Your task to perform on an android device: set an alarm Image 0: 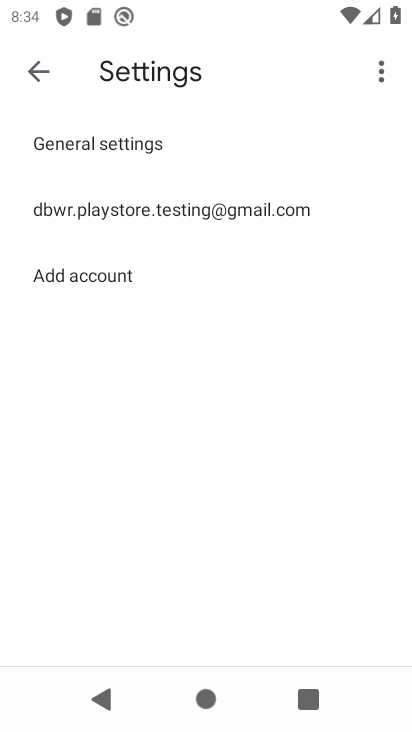
Step 0: press home button
Your task to perform on an android device: set an alarm Image 1: 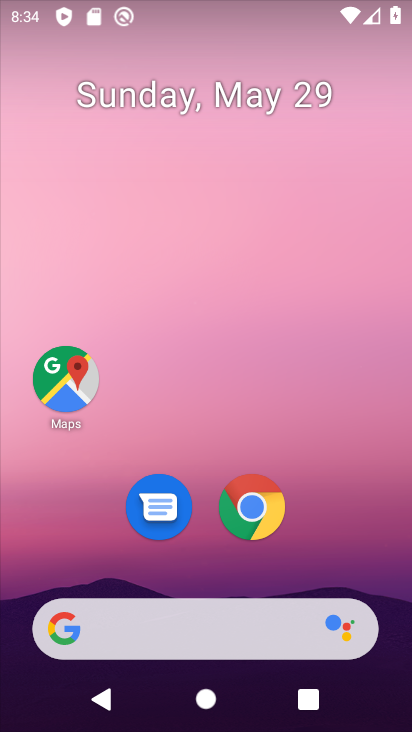
Step 1: drag from (85, 583) to (309, 43)
Your task to perform on an android device: set an alarm Image 2: 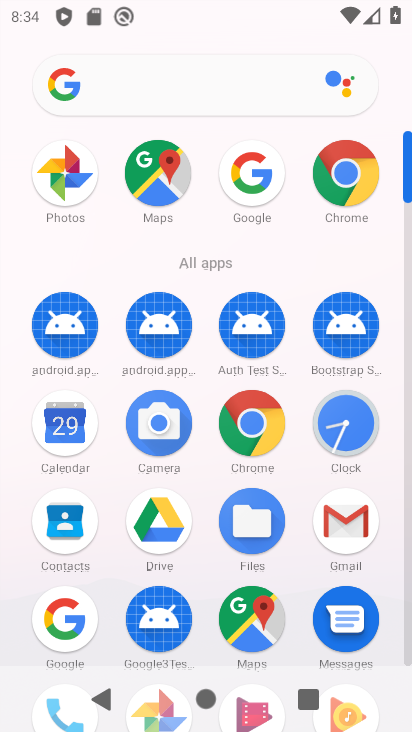
Step 2: click (354, 427)
Your task to perform on an android device: set an alarm Image 3: 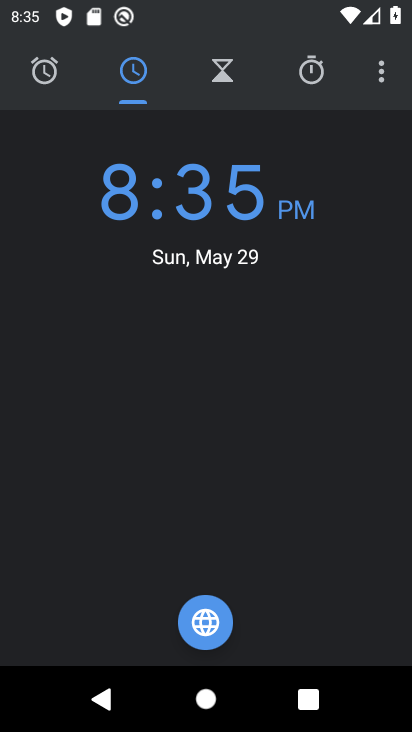
Step 3: click (62, 94)
Your task to perform on an android device: set an alarm Image 4: 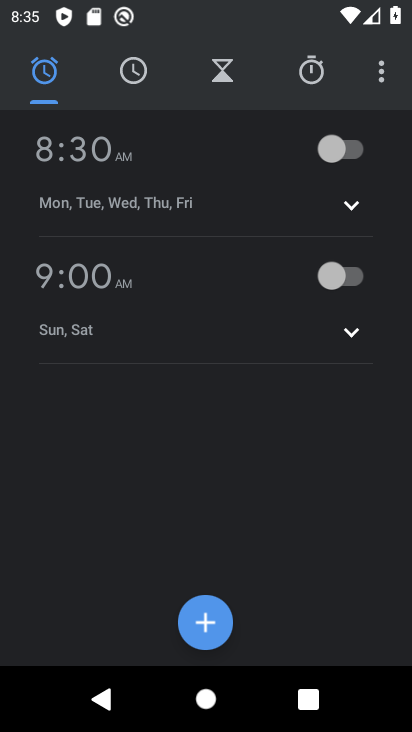
Step 4: click (215, 619)
Your task to perform on an android device: set an alarm Image 5: 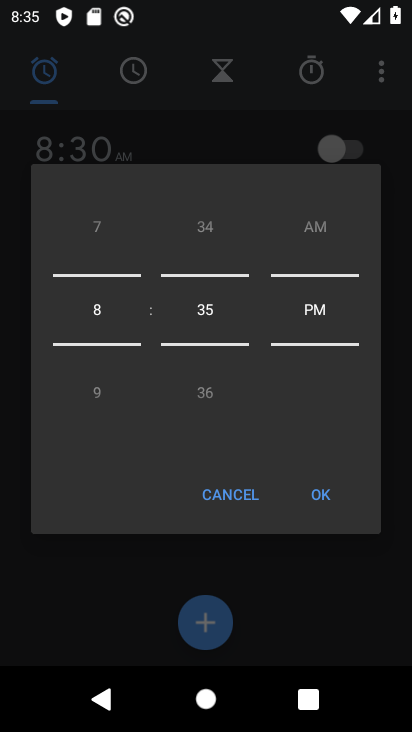
Step 5: click (98, 391)
Your task to perform on an android device: set an alarm Image 6: 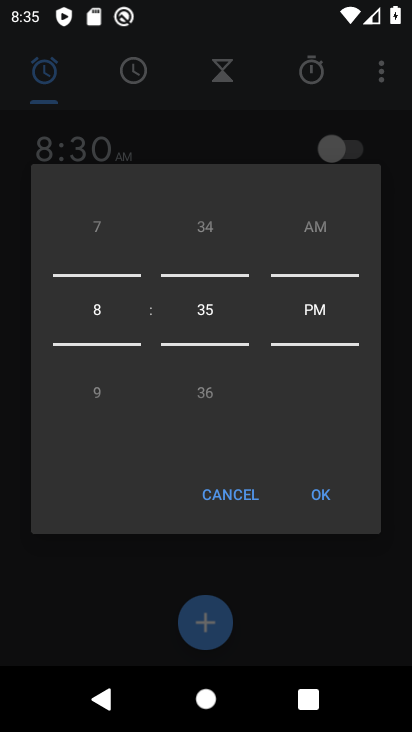
Step 6: click (102, 400)
Your task to perform on an android device: set an alarm Image 7: 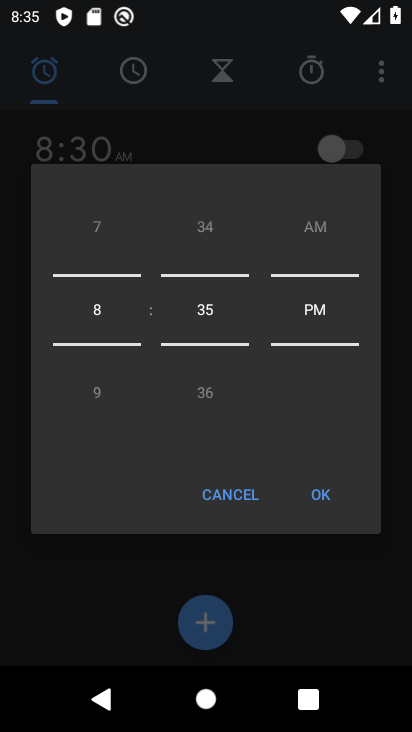
Step 7: drag from (102, 330) to (140, 147)
Your task to perform on an android device: set an alarm Image 8: 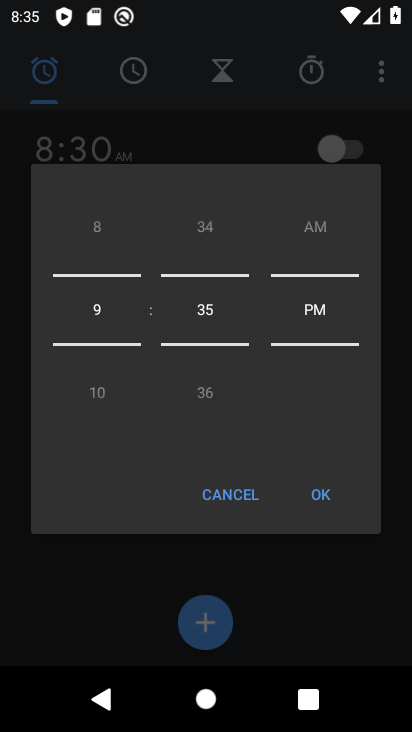
Step 8: drag from (199, 369) to (281, 110)
Your task to perform on an android device: set an alarm Image 9: 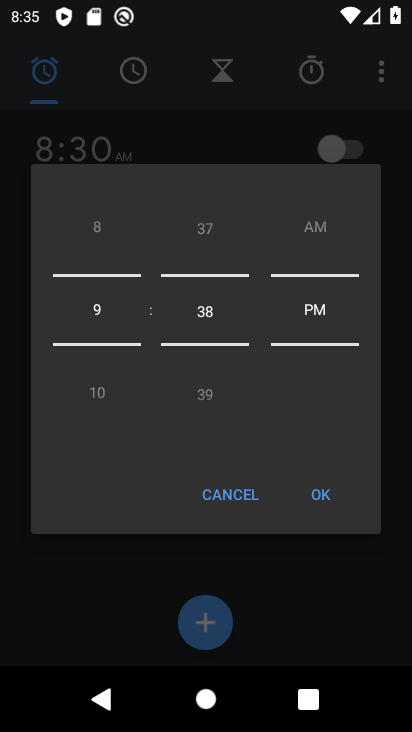
Step 9: drag from (194, 408) to (297, 114)
Your task to perform on an android device: set an alarm Image 10: 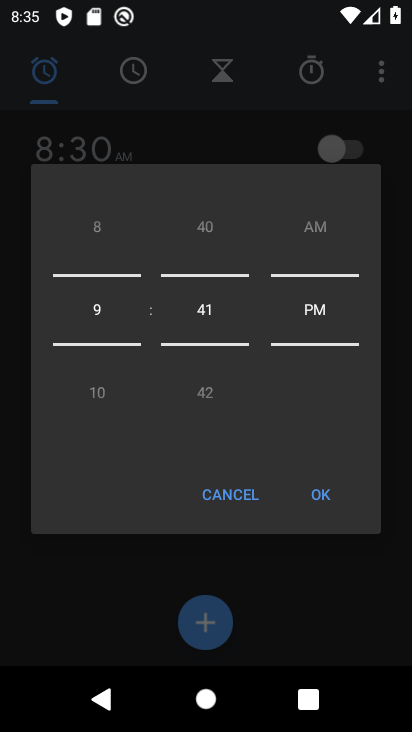
Step 10: drag from (78, 377) to (140, 220)
Your task to perform on an android device: set an alarm Image 11: 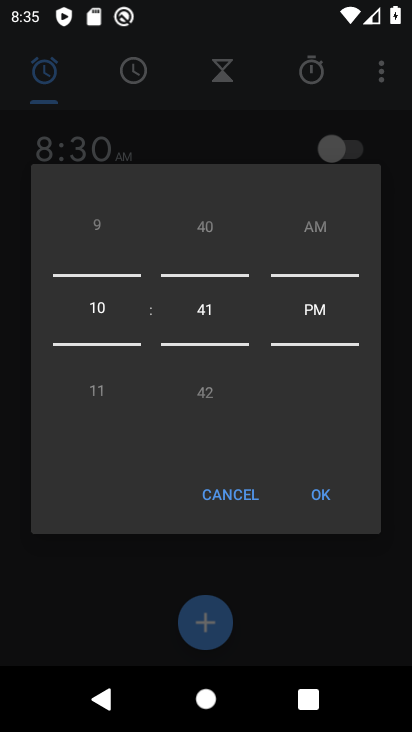
Step 11: drag from (219, 405) to (281, 144)
Your task to perform on an android device: set an alarm Image 12: 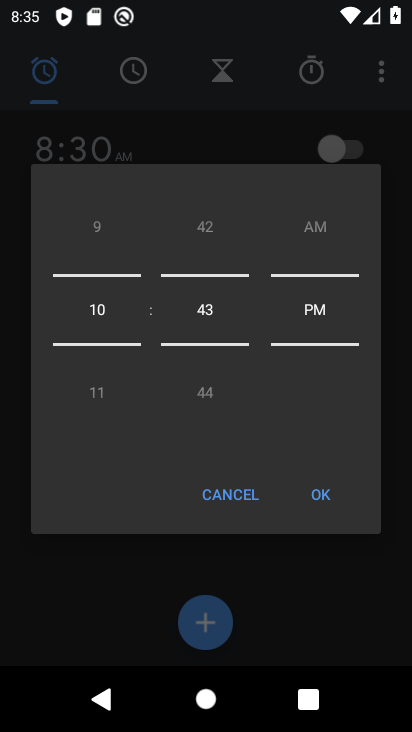
Step 12: drag from (202, 378) to (308, 179)
Your task to perform on an android device: set an alarm Image 13: 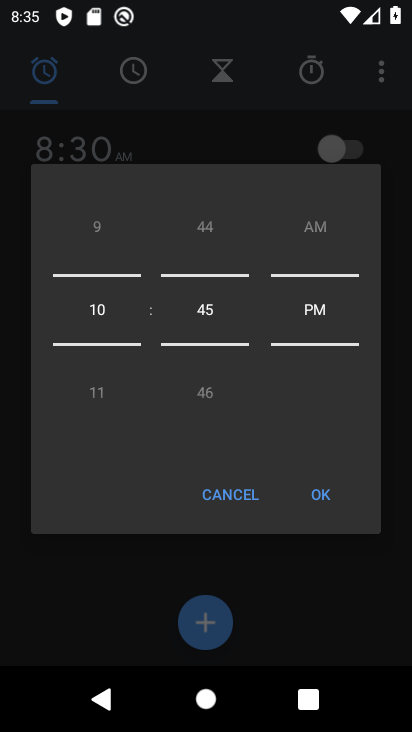
Step 13: drag from (317, 286) to (332, 467)
Your task to perform on an android device: set an alarm Image 14: 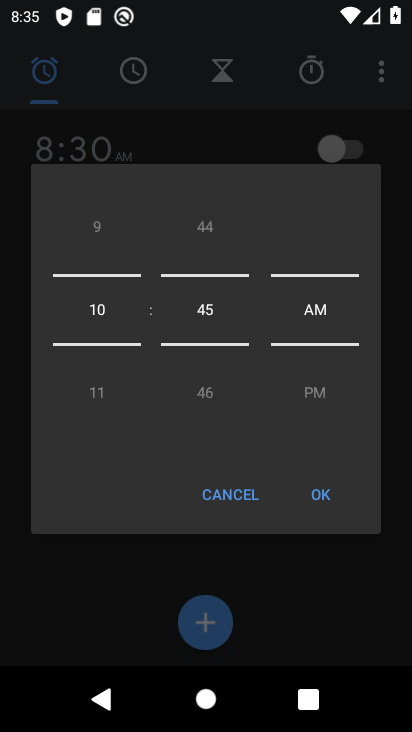
Step 14: click (327, 497)
Your task to perform on an android device: set an alarm Image 15: 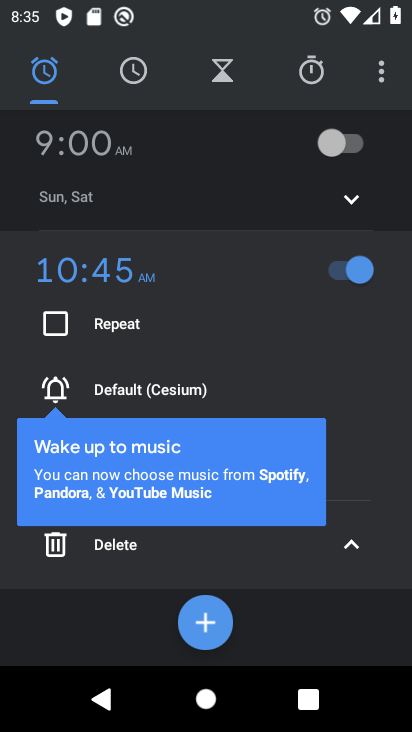
Step 15: task complete